Your task to perform on an android device: Open Google Chrome Image 0: 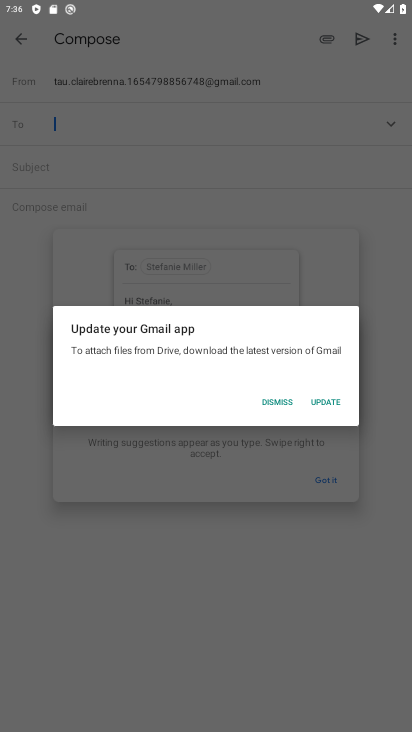
Step 0: press home button
Your task to perform on an android device: Open Google Chrome Image 1: 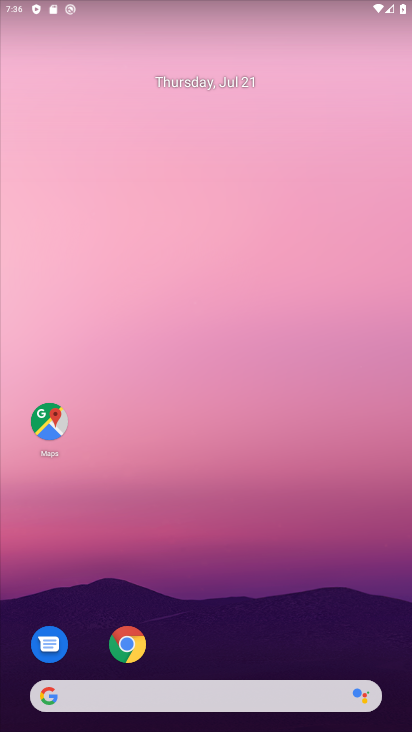
Step 1: drag from (287, 614) to (358, 230)
Your task to perform on an android device: Open Google Chrome Image 2: 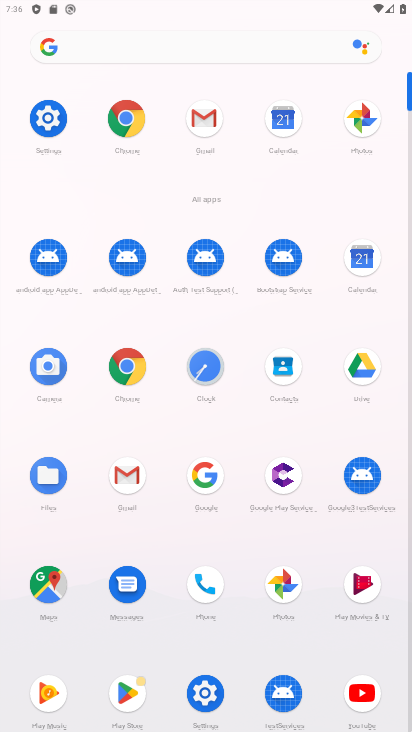
Step 2: click (133, 368)
Your task to perform on an android device: Open Google Chrome Image 3: 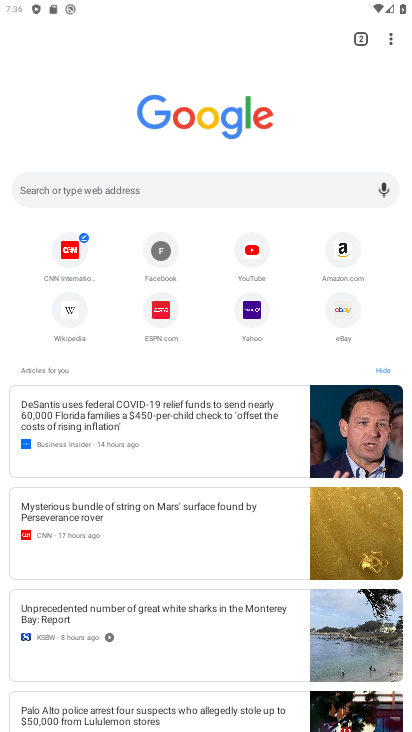
Step 3: task complete